Your task to perform on an android device: allow notifications from all sites in the chrome app Image 0: 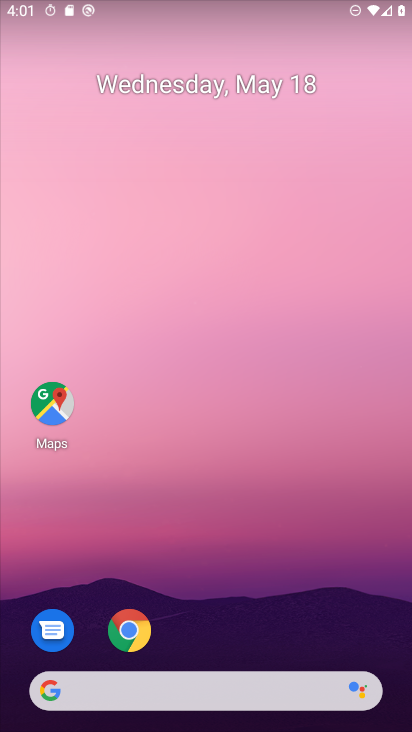
Step 0: click (134, 630)
Your task to perform on an android device: allow notifications from all sites in the chrome app Image 1: 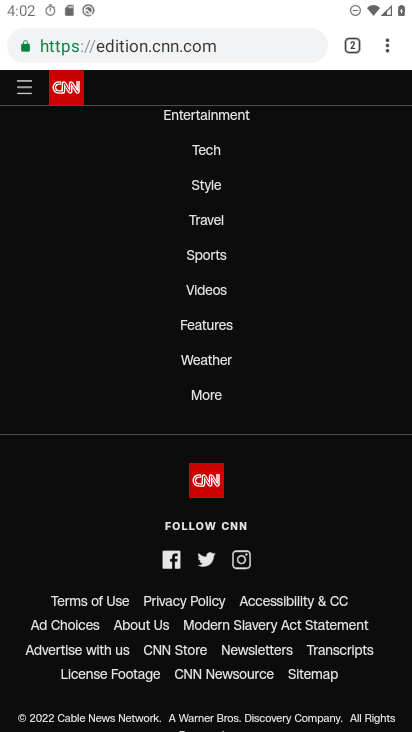
Step 1: click (390, 33)
Your task to perform on an android device: allow notifications from all sites in the chrome app Image 2: 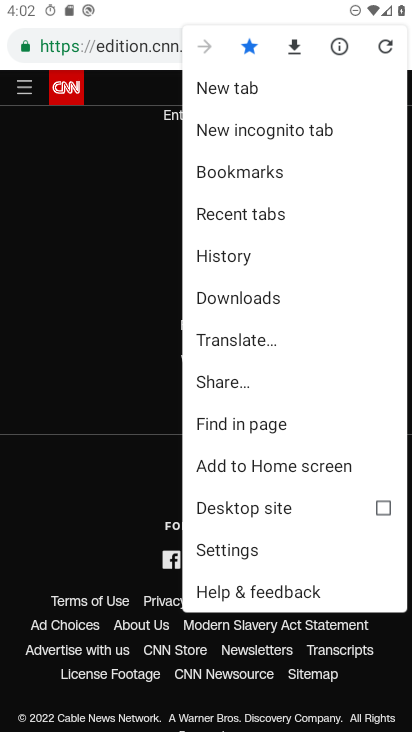
Step 2: click (269, 550)
Your task to perform on an android device: allow notifications from all sites in the chrome app Image 3: 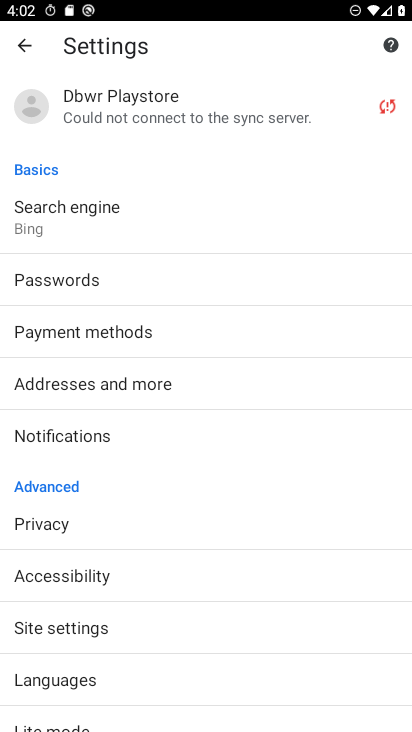
Step 3: drag from (204, 640) to (204, 152)
Your task to perform on an android device: allow notifications from all sites in the chrome app Image 4: 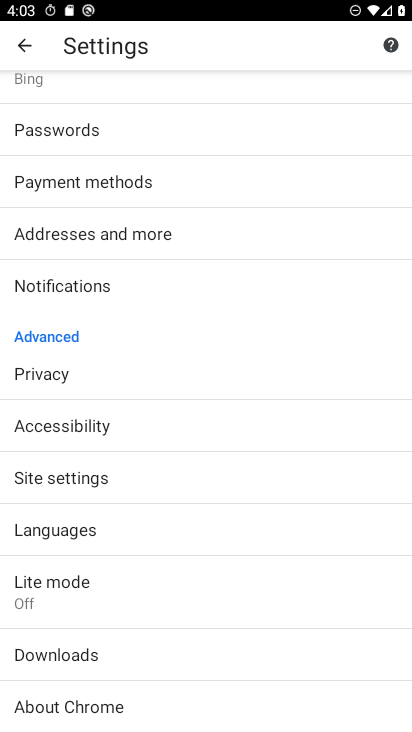
Step 4: click (111, 478)
Your task to perform on an android device: allow notifications from all sites in the chrome app Image 5: 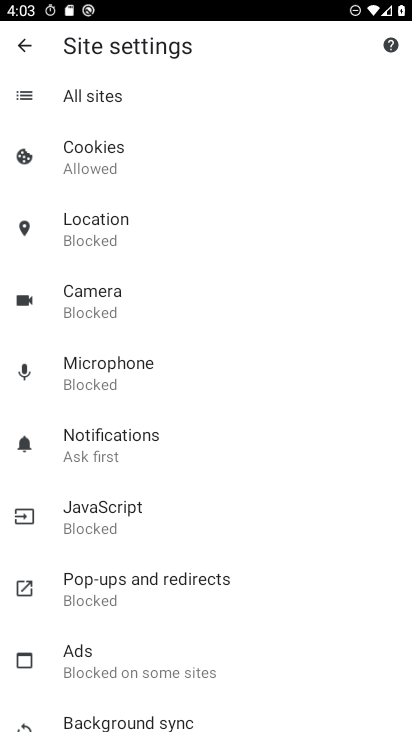
Step 5: click (144, 445)
Your task to perform on an android device: allow notifications from all sites in the chrome app Image 6: 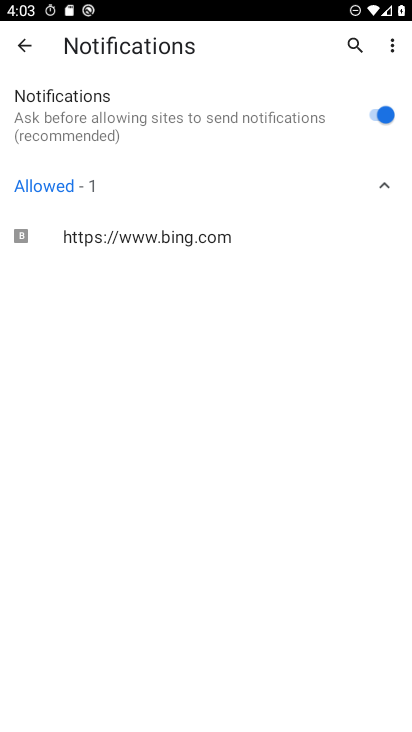
Step 6: click (372, 118)
Your task to perform on an android device: allow notifications from all sites in the chrome app Image 7: 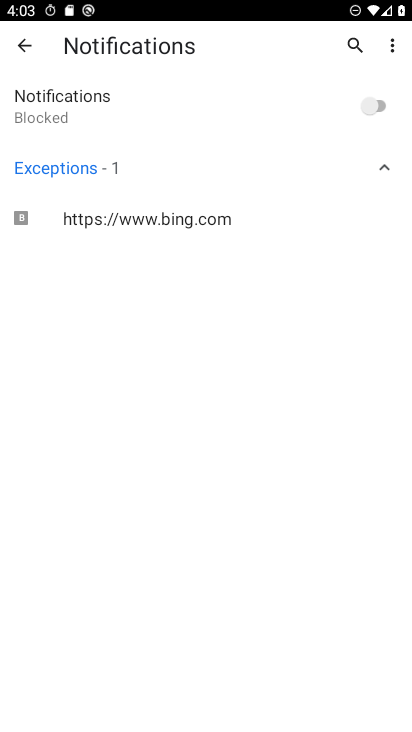
Step 7: task complete